Your task to perform on an android device: turn off wifi Image 0: 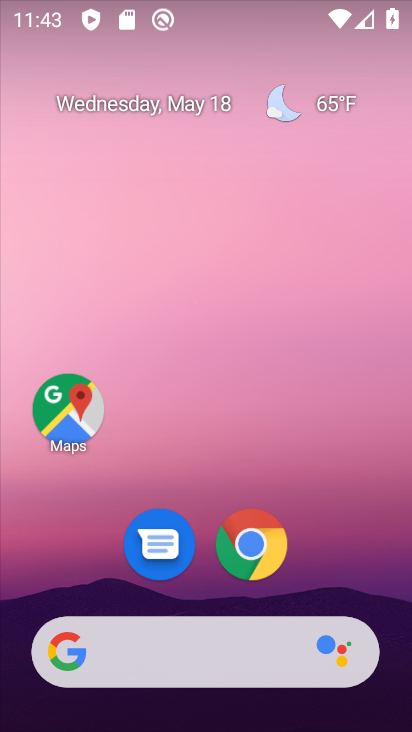
Step 0: drag from (384, 559) to (365, 105)
Your task to perform on an android device: turn off wifi Image 1: 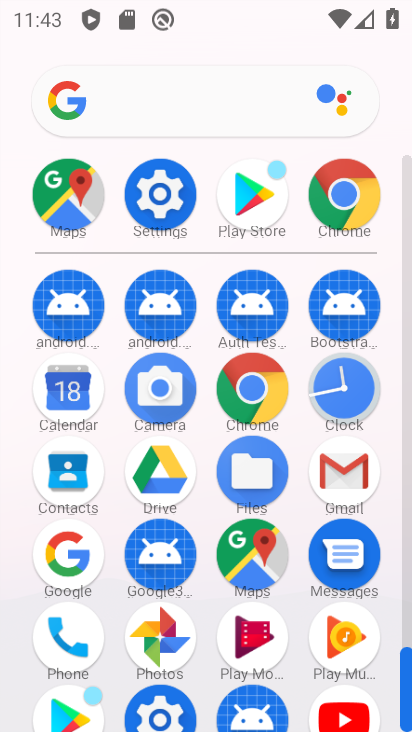
Step 1: click (166, 204)
Your task to perform on an android device: turn off wifi Image 2: 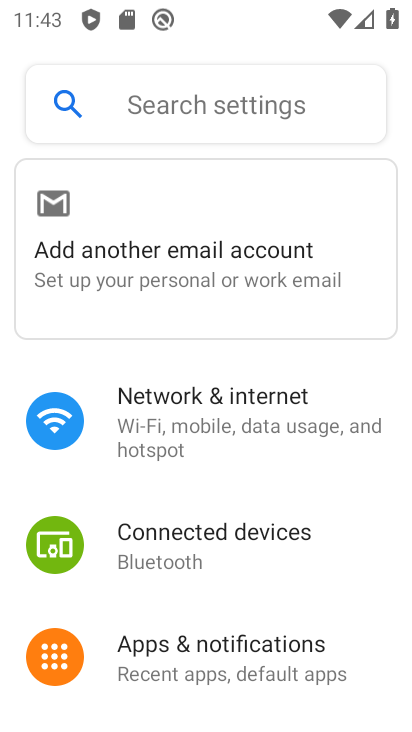
Step 2: click (297, 424)
Your task to perform on an android device: turn off wifi Image 3: 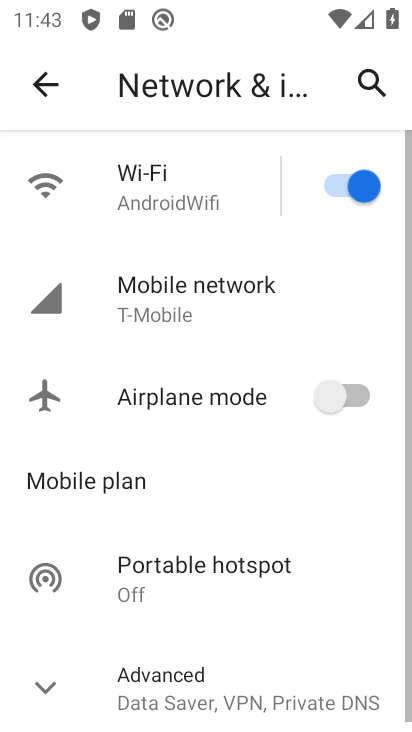
Step 3: click (327, 184)
Your task to perform on an android device: turn off wifi Image 4: 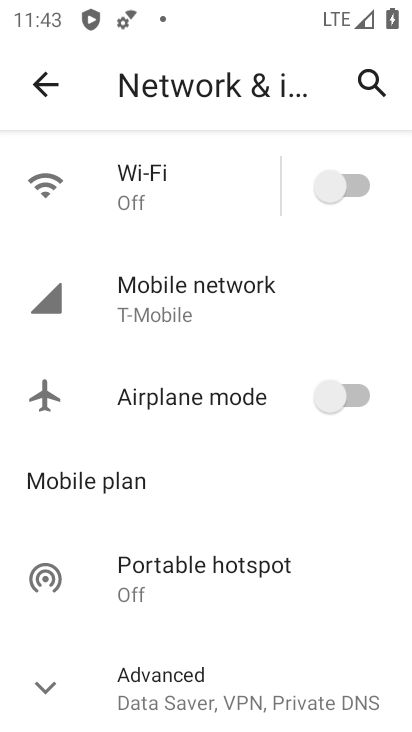
Step 4: task complete